Your task to perform on an android device: Open the calendar app, open the side menu, and click the "Day" option Image 0: 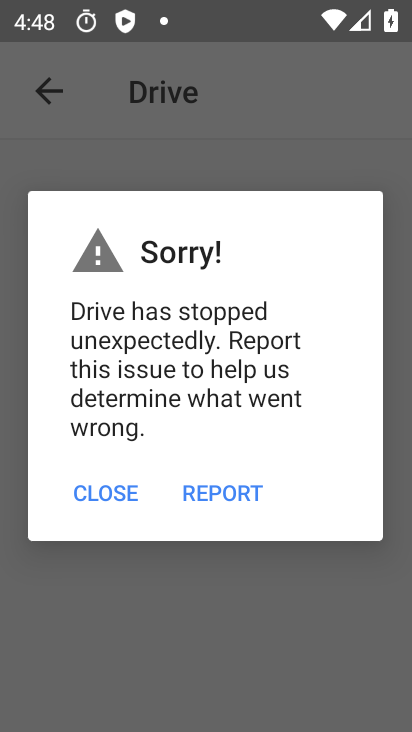
Step 0: press home button
Your task to perform on an android device: Open the calendar app, open the side menu, and click the "Day" option Image 1: 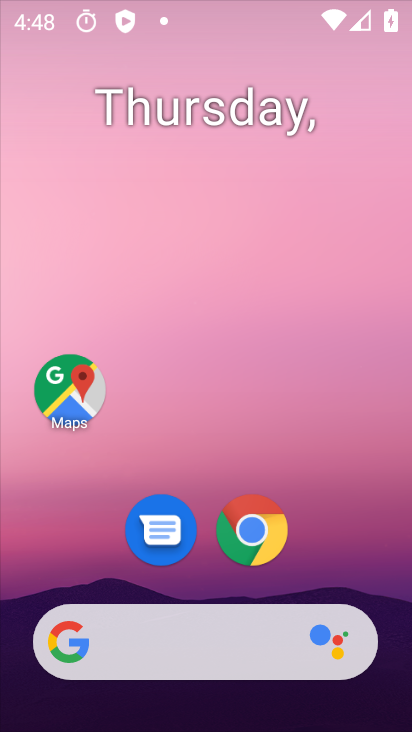
Step 1: drag from (274, 657) to (321, 15)
Your task to perform on an android device: Open the calendar app, open the side menu, and click the "Day" option Image 2: 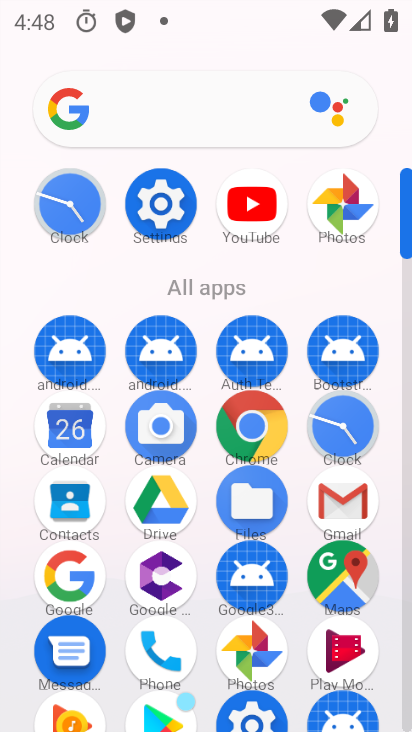
Step 2: click (63, 433)
Your task to perform on an android device: Open the calendar app, open the side menu, and click the "Day" option Image 3: 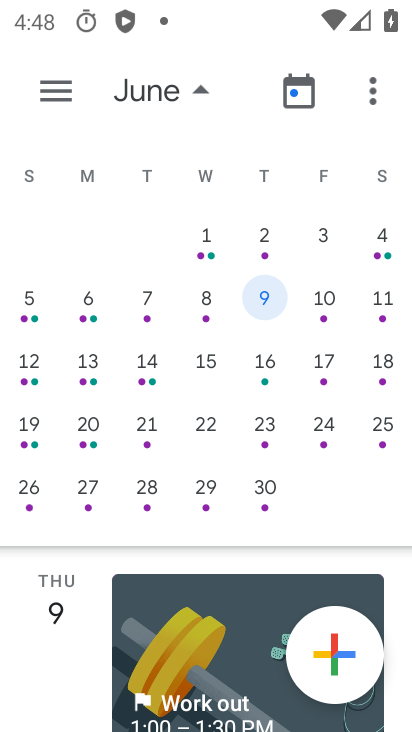
Step 3: drag from (72, 248) to (394, 276)
Your task to perform on an android device: Open the calendar app, open the side menu, and click the "Day" option Image 4: 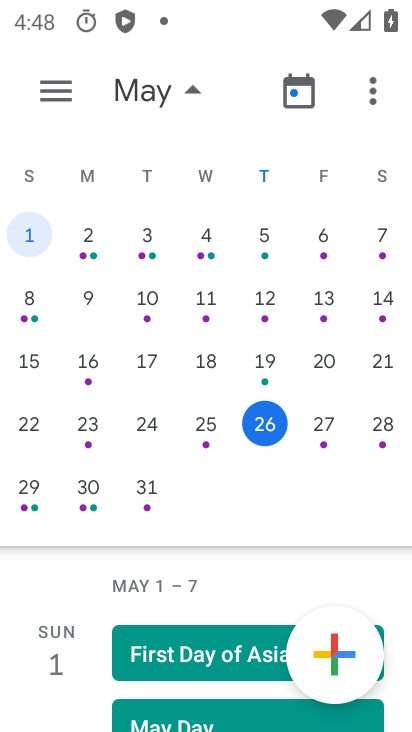
Step 4: click (49, 90)
Your task to perform on an android device: Open the calendar app, open the side menu, and click the "Day" option Image 5: 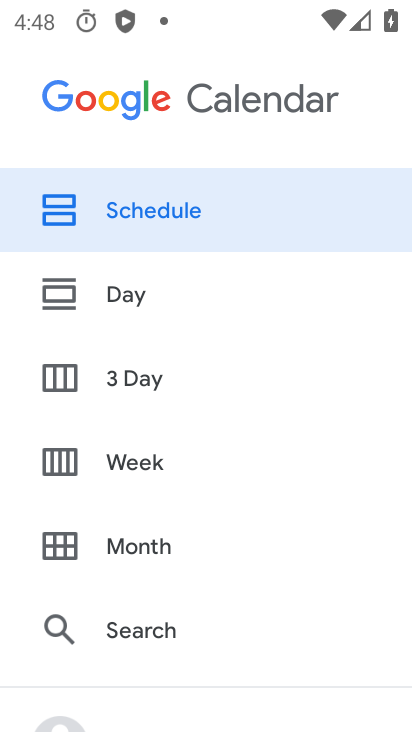
Step 5: click (150, 292)
Your task to perform on an android device: Open the calendar app, open the side menu, and click the "Day" option Image 6: 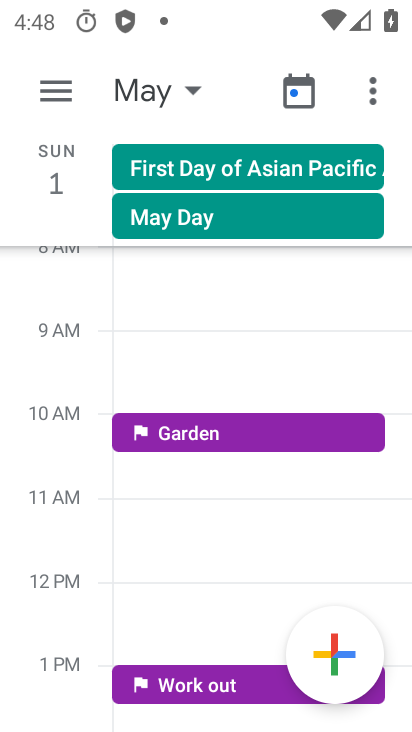
Step 6: click (45, 88)
Your task to perform on an android device: Open the calendar app, open the side menu, and click the "Day" option Image 7: 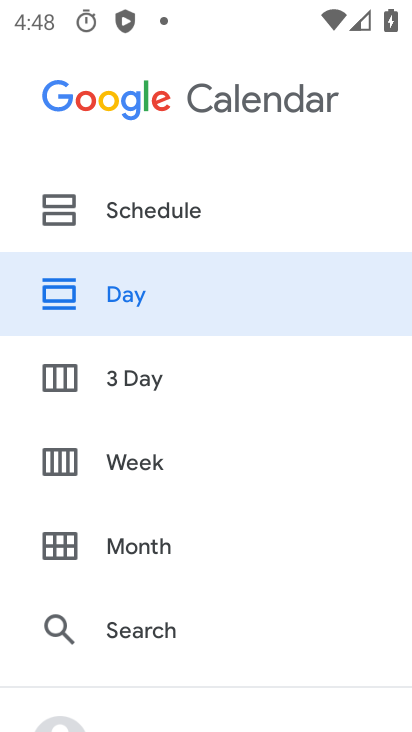
Step 7: press back button
Your task to perform on an android device: Open the calendar app, open the side menu, and click the "Day" option Image 8: 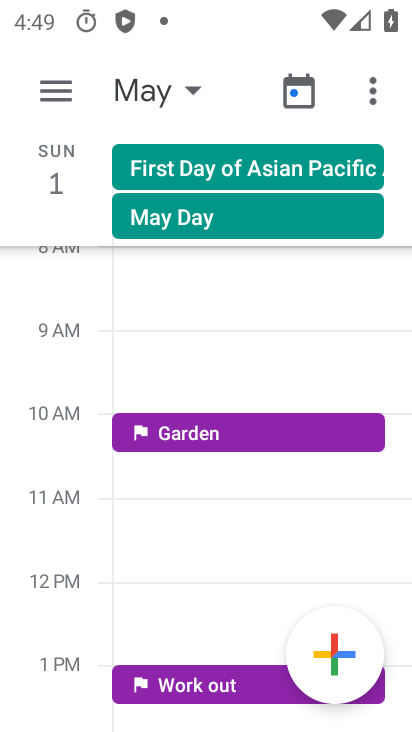
Step 8: click (182, 94)
Your task to perform on an android device: Open the calendar app, open the side menu, and click the "Day" option Image 9: 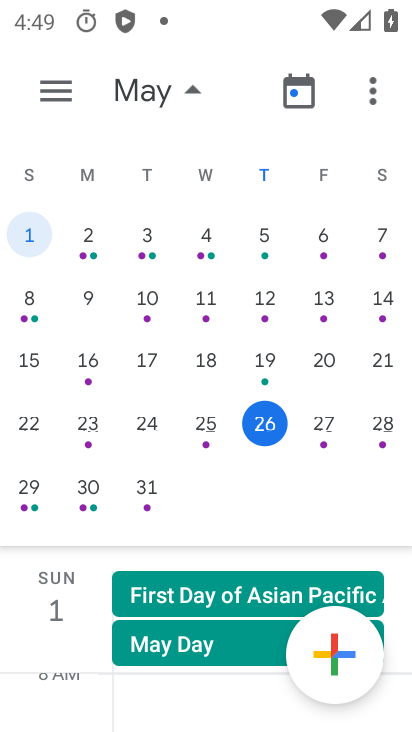
Step 9: click (60, 91)
Your task to perform on an android device: Open the calendar app, open the side menu, and click the "Day" option Image 10: 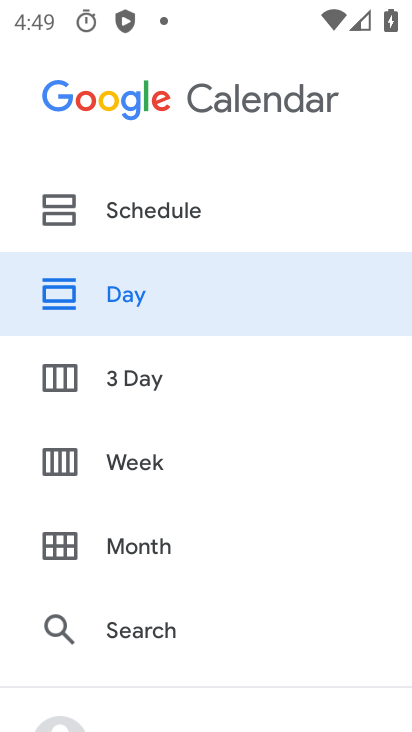
Step 10: click (136, 311)
Your task to perform on an android device: Open the calendar app, open the side menu, and click the "Day" option Image 11: 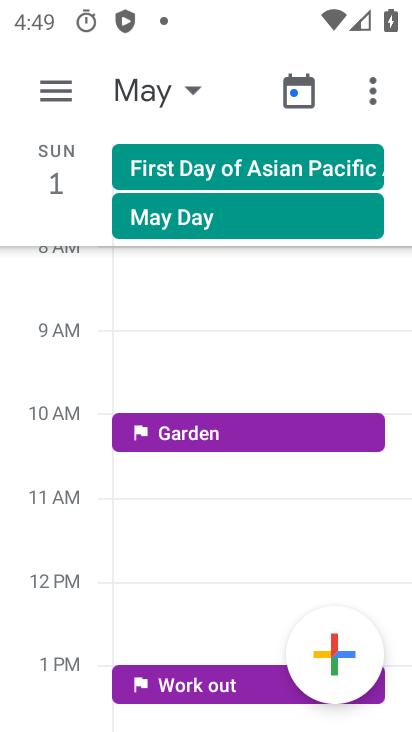
Step 11: task complete